Your task to perform on an android device: open app "Google Find My Device" Image 0: 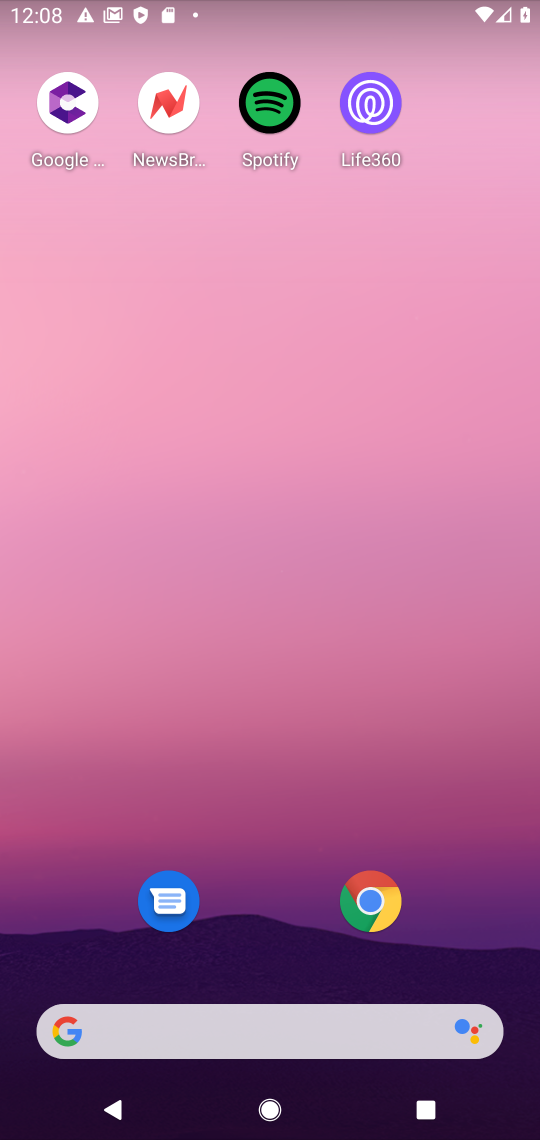
Step 0: drag from (217, 1010) to (330, 161)
Your task to perform on an android device: open app "Google Find My Device" Image 1: 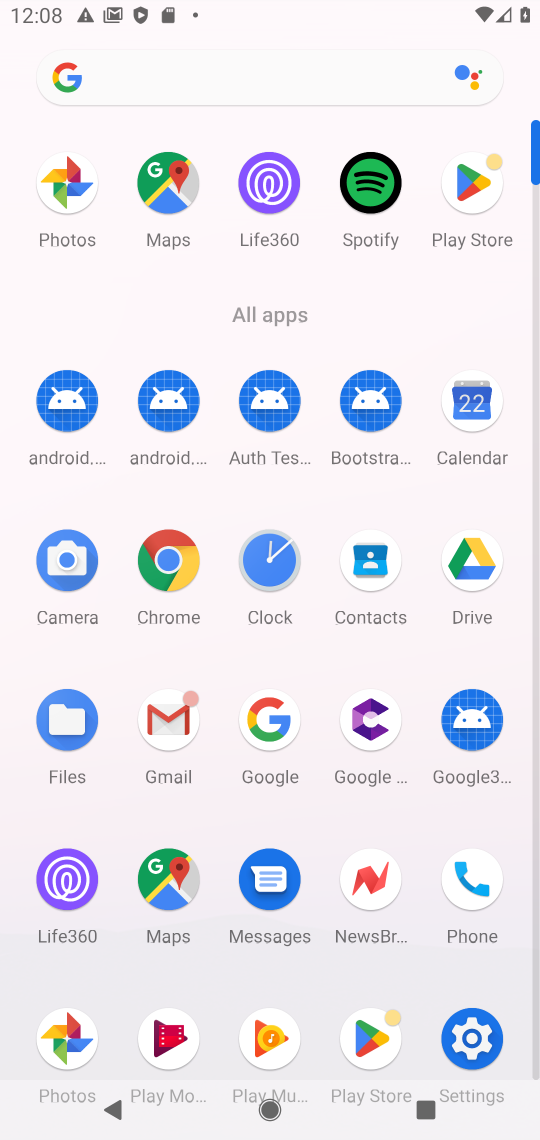
Step 1: click (448, 222)
Your task to perform on an android device: open app "Google Find My Device" Image 2: 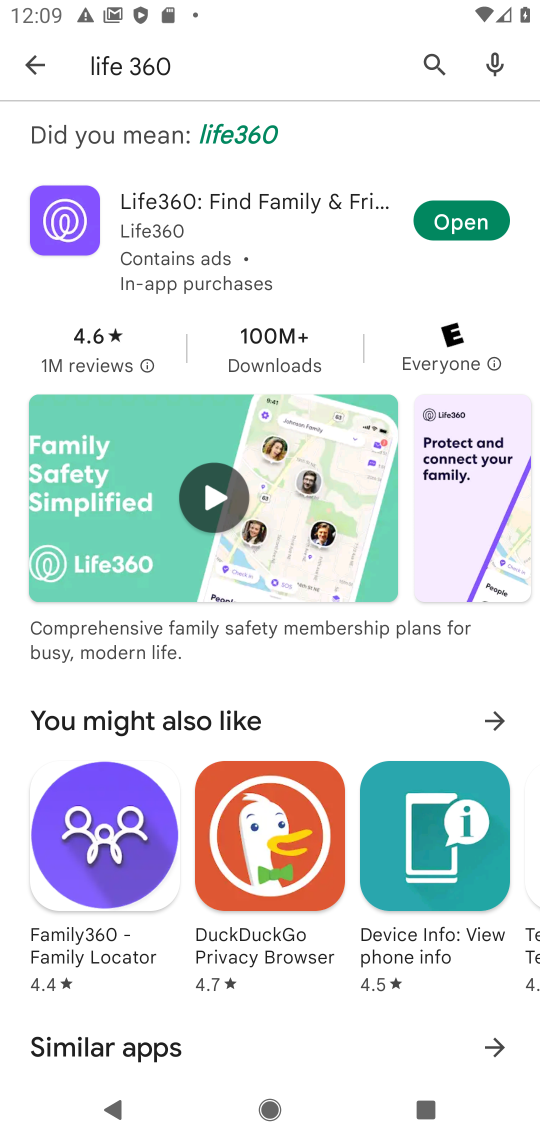
Step 2: click (443, 63)
Your task to perform on an android device: open app "Google Find My Device" Image 3: 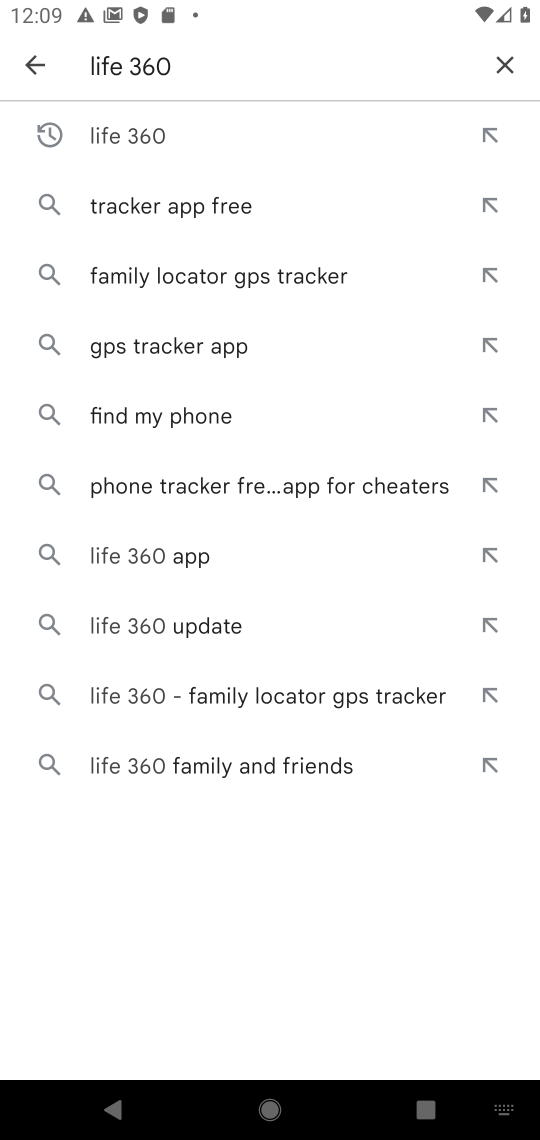
Step 3: click (487, 75)
Your task to perform on an android device: open app "Google Find My Device" Image 4: 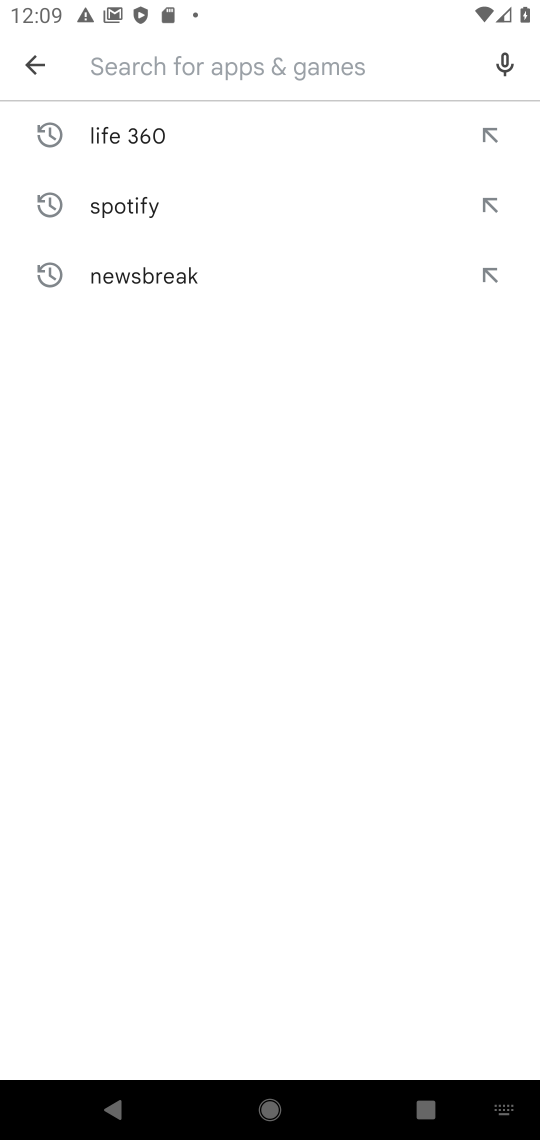
Step 4: type "google find my device"
Your task to perform on an android device: open app "Google Find My Device" Image 5: 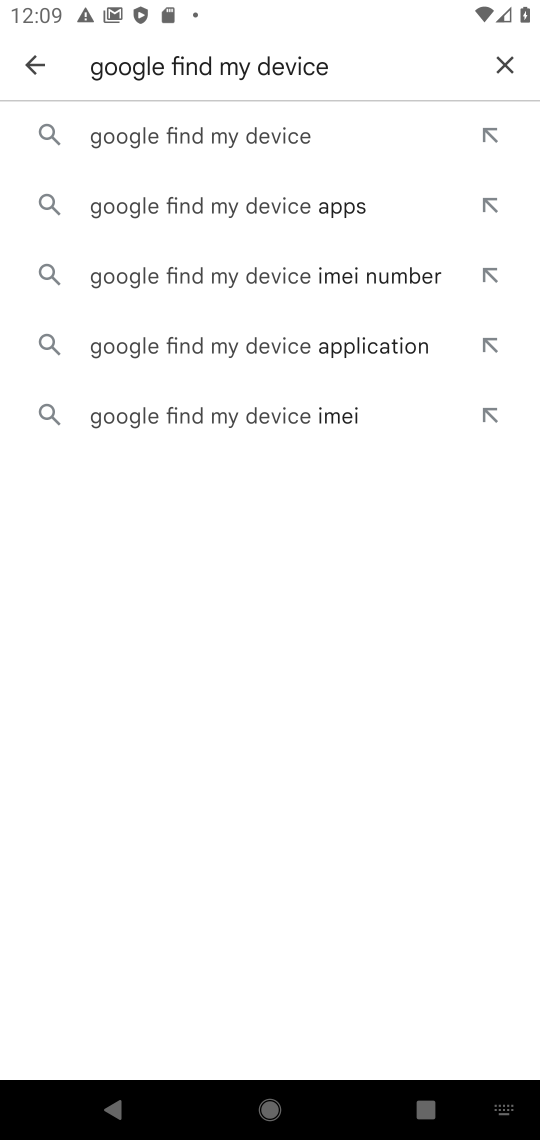
Step 5: click (205, 126)
Your task to perform on an android device: open app "Google Find My Device" Image 6: 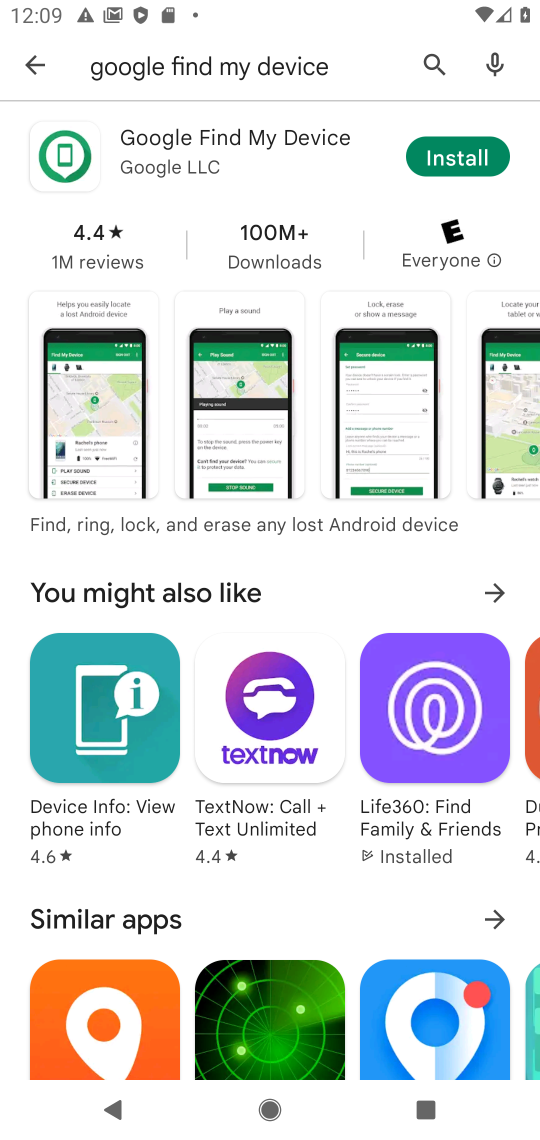
Step 6: task complete